Your task to perform on an android device: check the backup settings in the google photos Image 0: 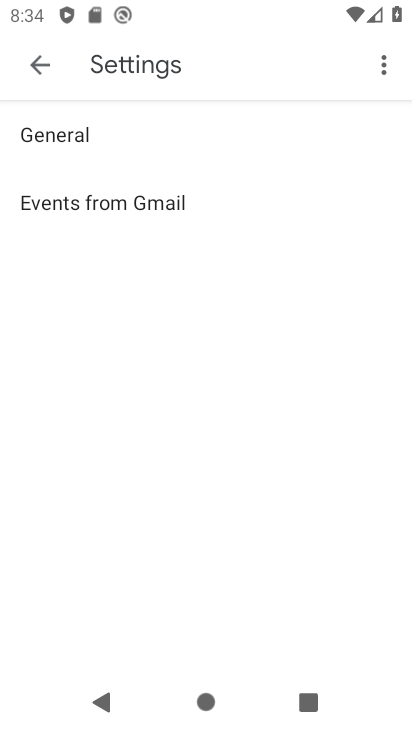
Step 0: press home button
Your task to perform on an android device: check the backup settings in the google photos Image 1: 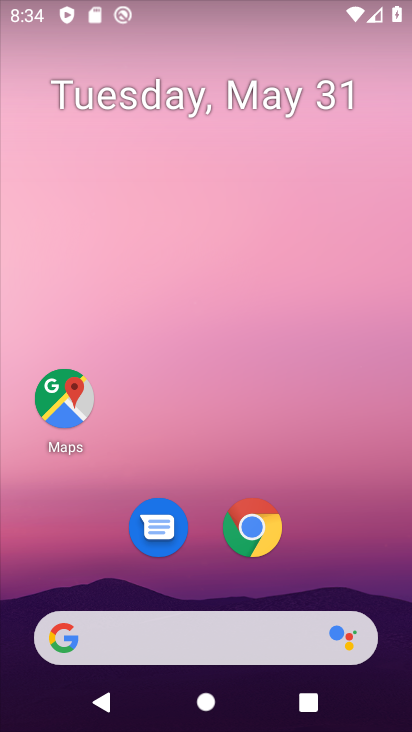
Step 1: drag from (189, 590) to (164, 176)
Your task to perform on an android device: check the backup settings in the google photos Image 2: 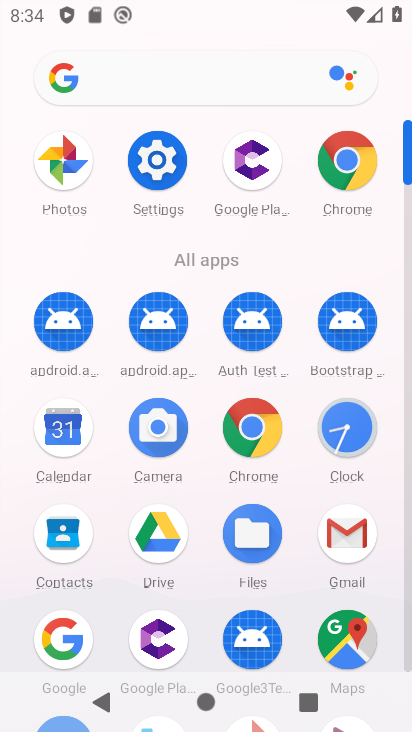
Step 2: drag from (246, 591) to (219, 394)
Your task to perform on an android device: check the backup settings in the google photos Image 3: 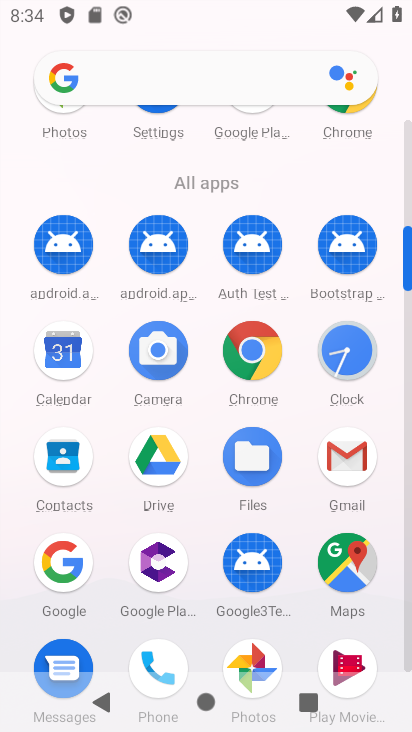
Step 3: click (251, 656)
Your task to perform on an android device: check the backup settings in the google photos Image 4: 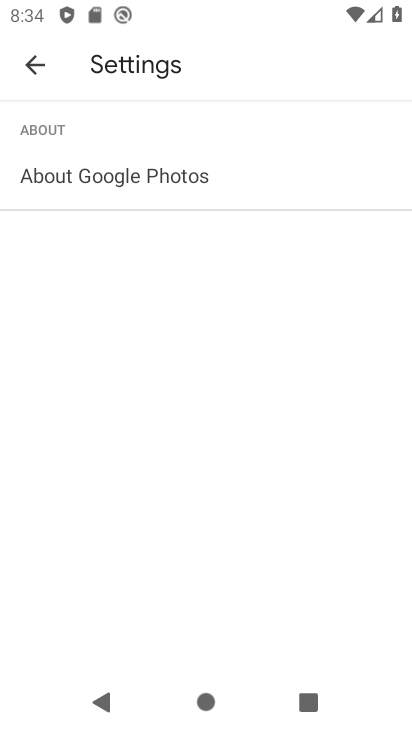
Step 4: click (24, 68)
Your task to perform on an android device: check the backup settings in the google photos Image 5: 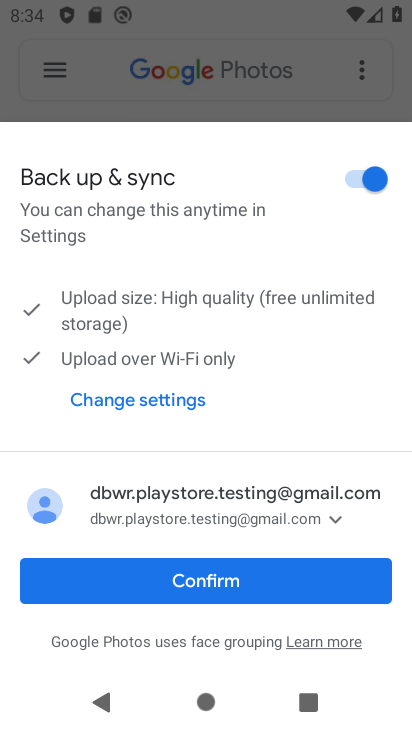
Step 5: click (149, 583)
Your task to perform on an android device: check the backup settings in the google photos Image 6: 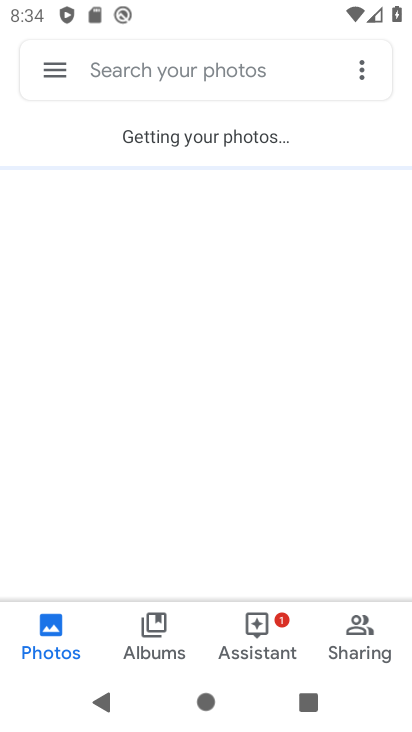
Step 6: click (59, 65)
Your task to perform on an android device: check the backup settings in the google photos Image 7: 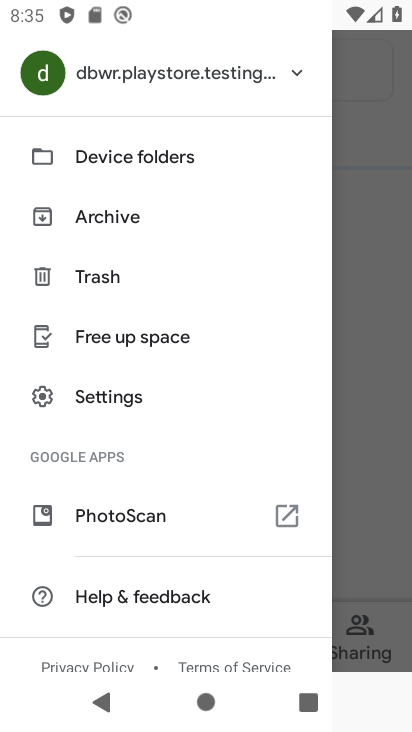
Step 7: click (155, 389)
Your task to perform on an android device: check the backup settings in the google photos Image 8: 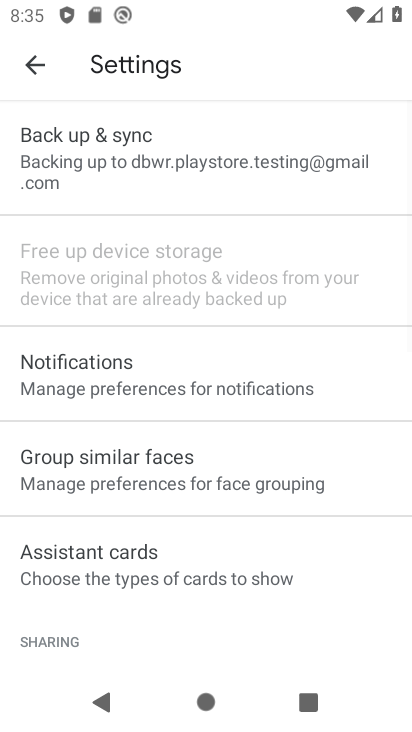
Step 8: click (133, 162)
Your task to perform on an android device: check the backup settings in the google photos Image 9: 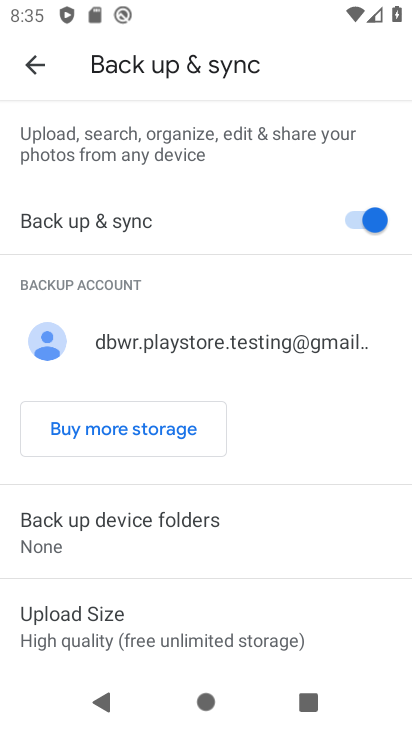
Step 9: task complete